Your task to perform on an android device: Add bose soundsport free to the cart on newegg, then select checkout. Image 0: 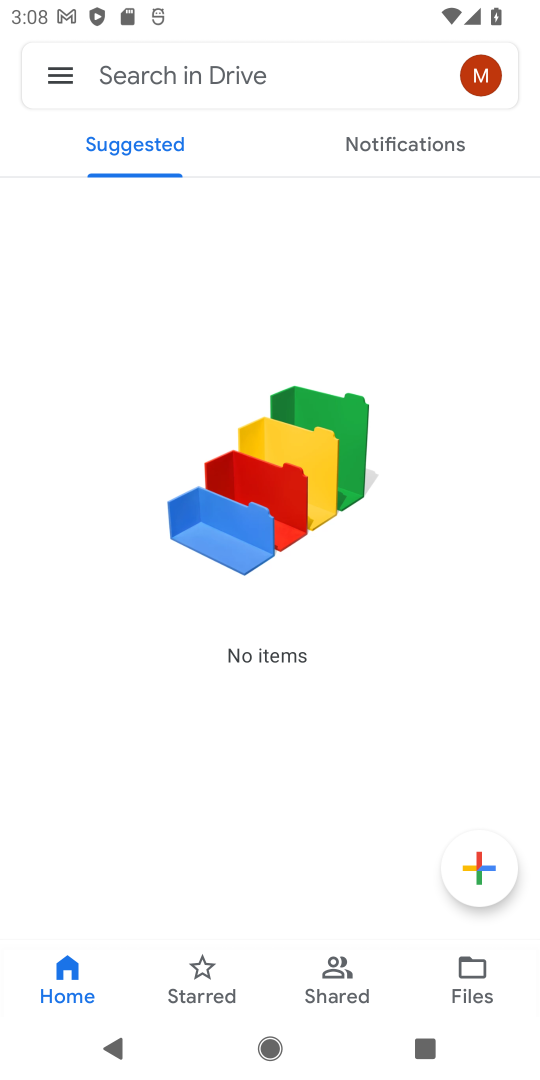
Step 0: press home button
Your task to perform on an android device: Add bose soundsport free to the cart on newegg, then select checkout. Image 1: 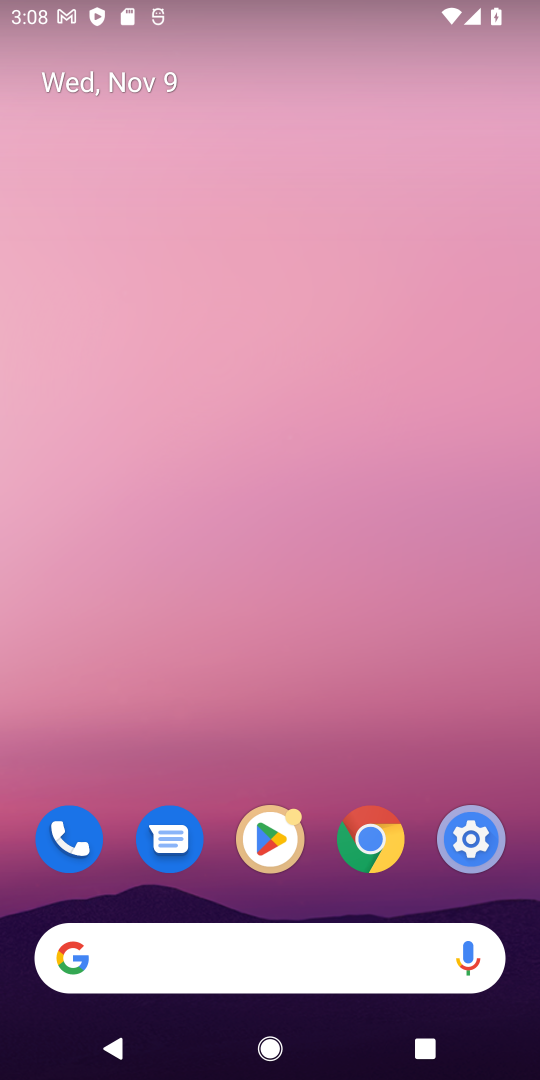
Step 1: click (355, 969)
Your task to perform on an android device: Add bose soundsport free to the cart on newegg, then select checkout. Image 2: 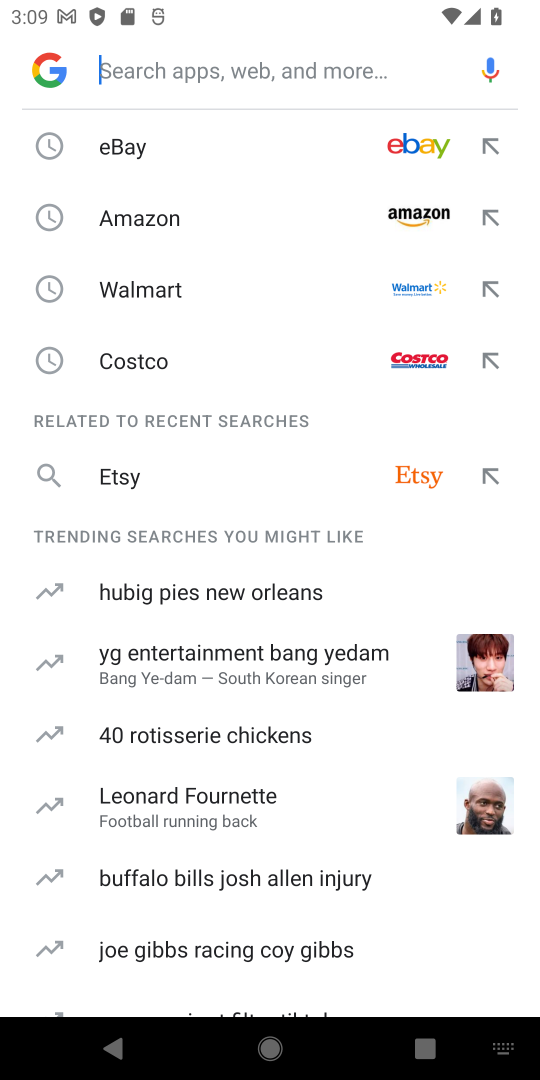
Step 2: type "newegg"
Your task to perform on an android device: Add bose soundsport free to the cart on newegg, then select checkout. Image 3: 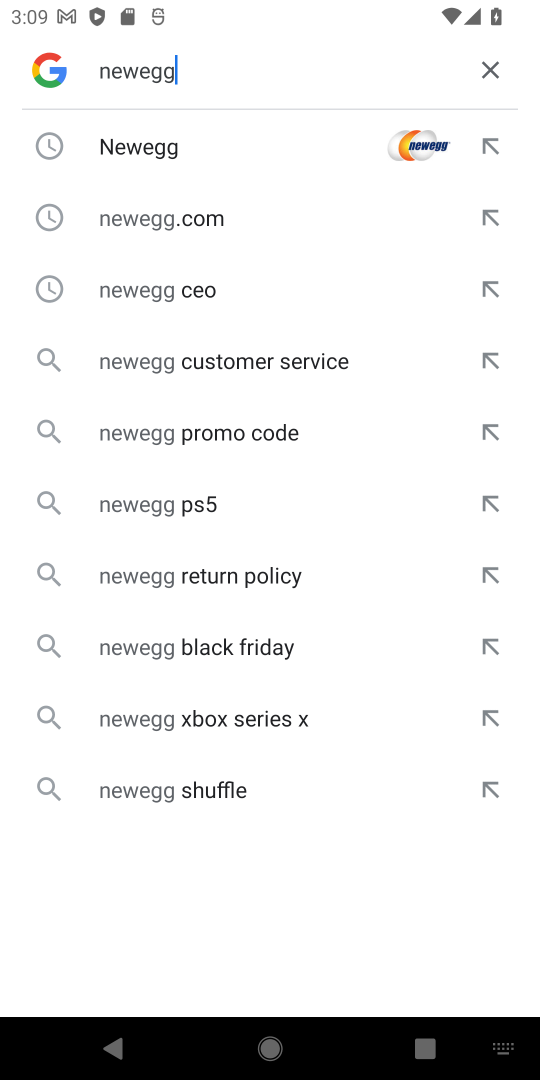
Step 3: click (394, 157)
Your task to perform on an android device: Add bose soundsport free to the cart on newegg, then select checkout. Image 4: 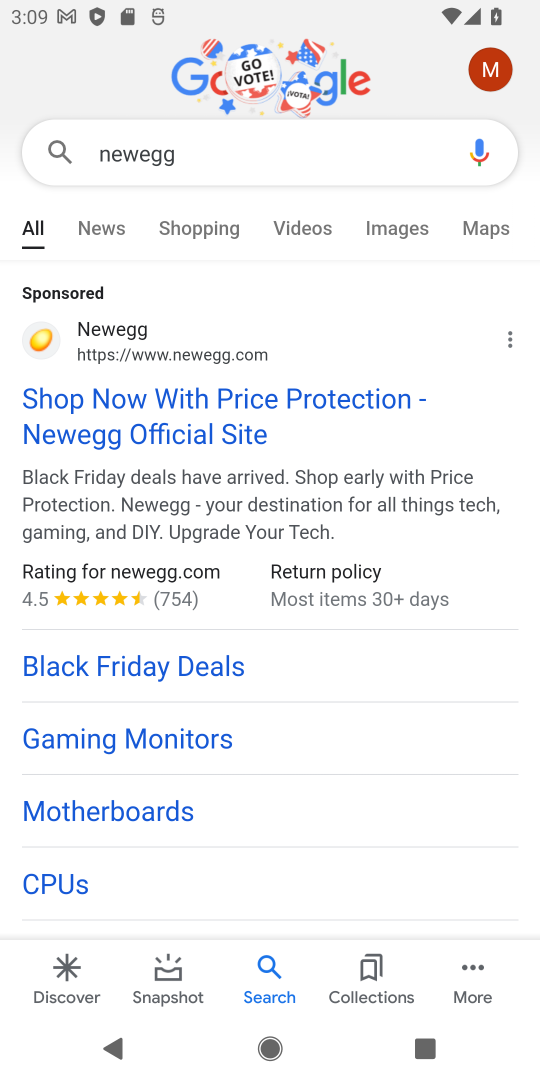
Step 4: click (206, 389)
Your task to perform on an android device: Add bose soundsport free to the cart on newegg, then select checkout. Image 5: 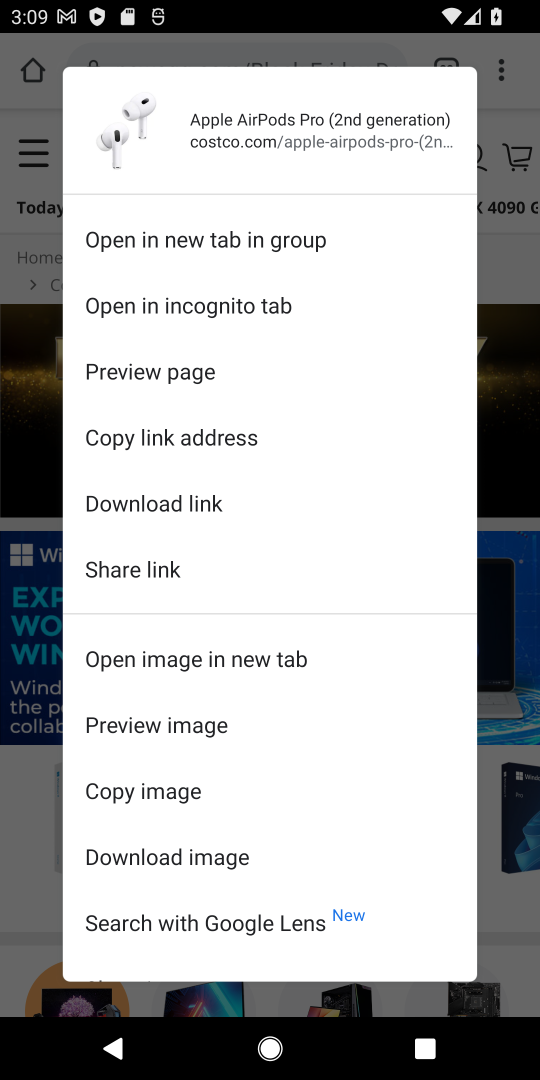
Step 5: task complete